Your task to perform on an android device: Go to Maps Image 0: 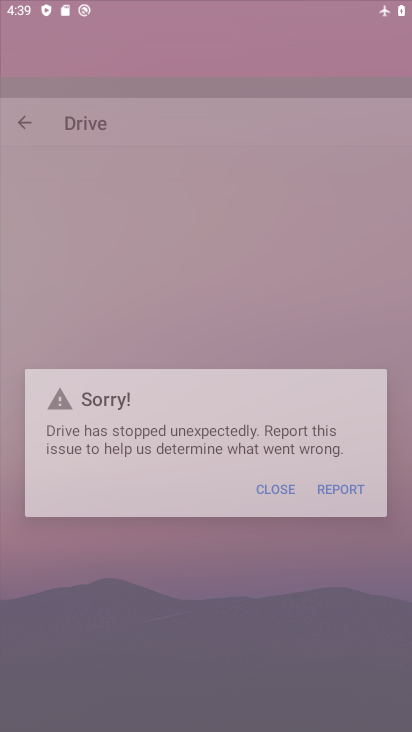
Step 0: drag from (185, 14) to (148, 20)
Your task to perform on an android device: Go to Maps Image 1: 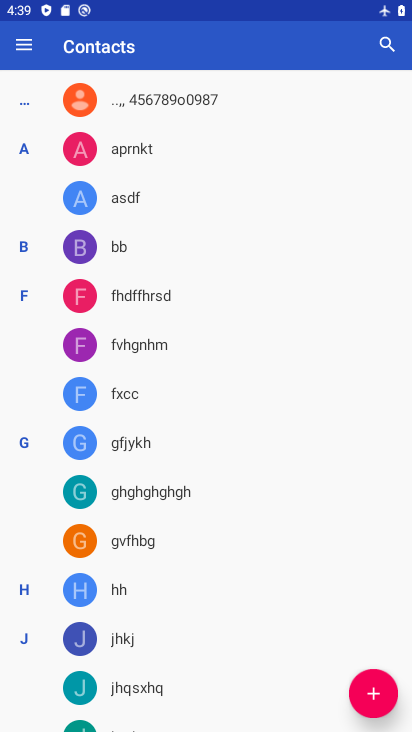
Step 1: press home button
Your task to perform on an android device: Go to Maps Image 2: 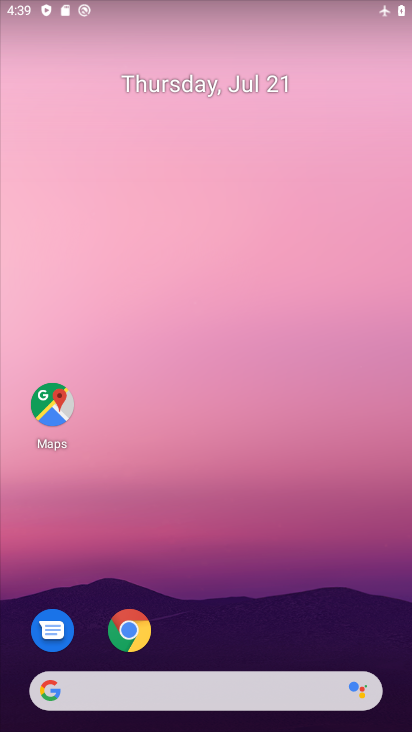
Step 2: click (54, 404)
Your task to perform on an android device: Go to Maps Image 3: 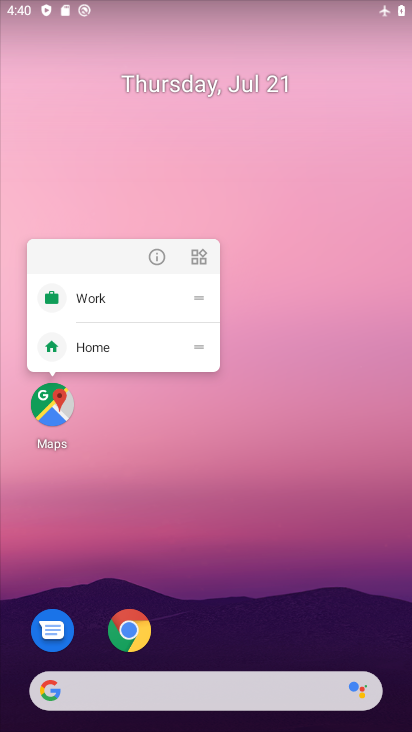
Step 3: click (54, 404)
Your task to perform on an android device: Go to Maps Image 4: 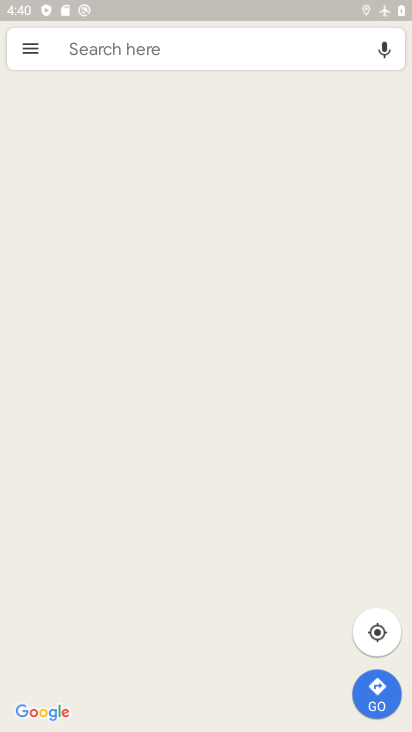
Step 4: task complete